Your task to perform on an android device: What's the weather going to be this weekend? Image 0: 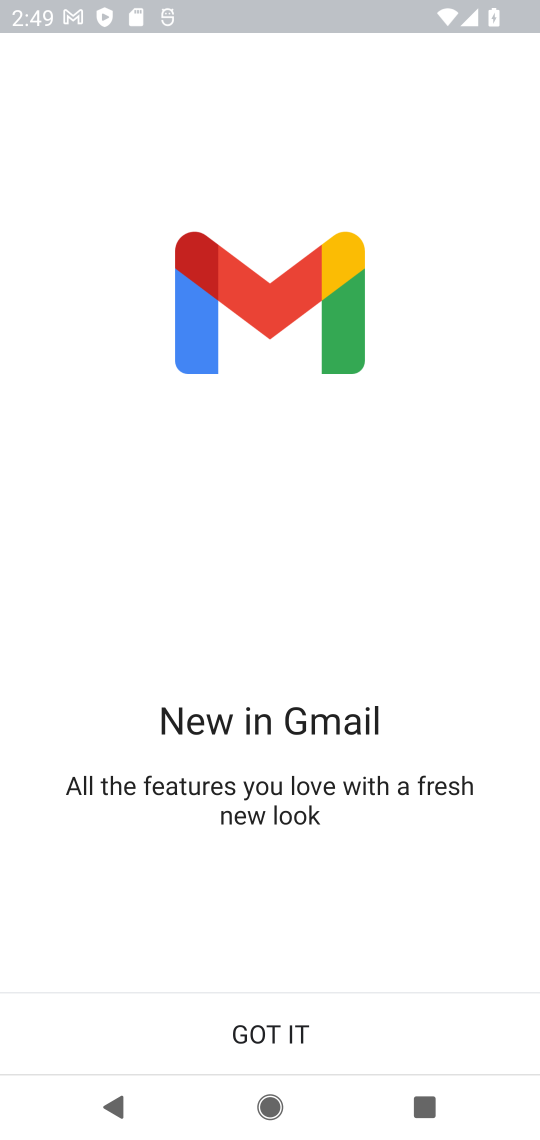
Step 0: press home button
Your task to perform on an android device: What's the weather going to be this weekend? Image 1: 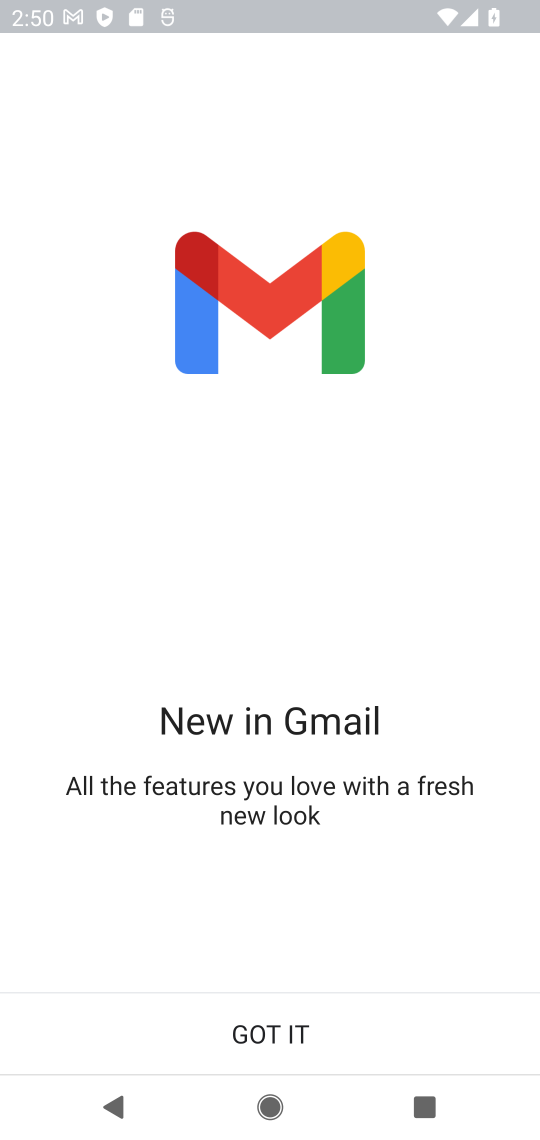
Step 1: press home button
Your task to perform on an android device: What's the weather going to be this weekend? Image 2: 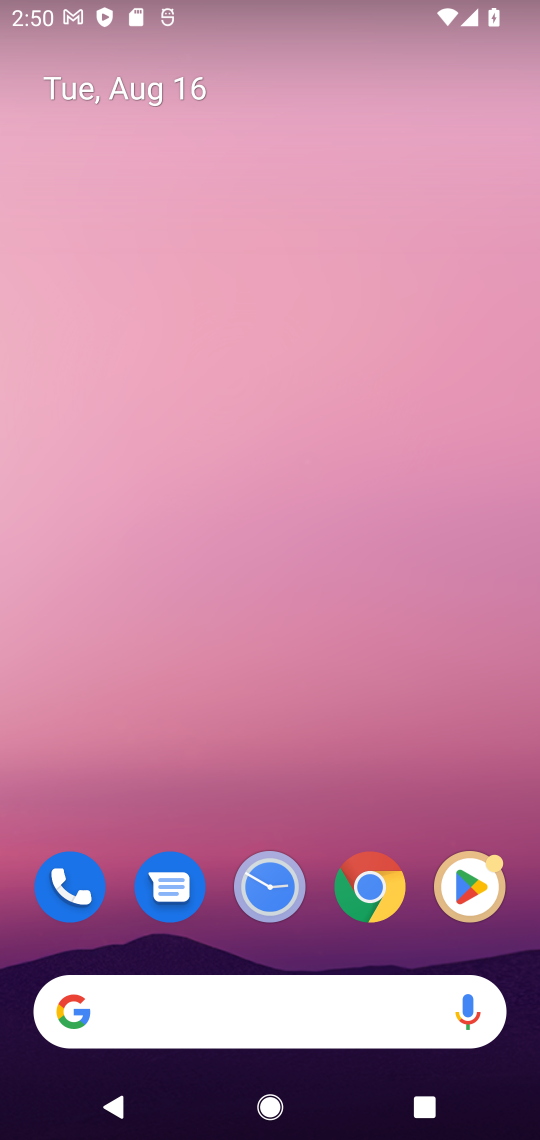
Step 2: drag from (301, 820) to (316, 75)
Your task to perform on an android device: What's the weather going to be this weekend? Image 3: 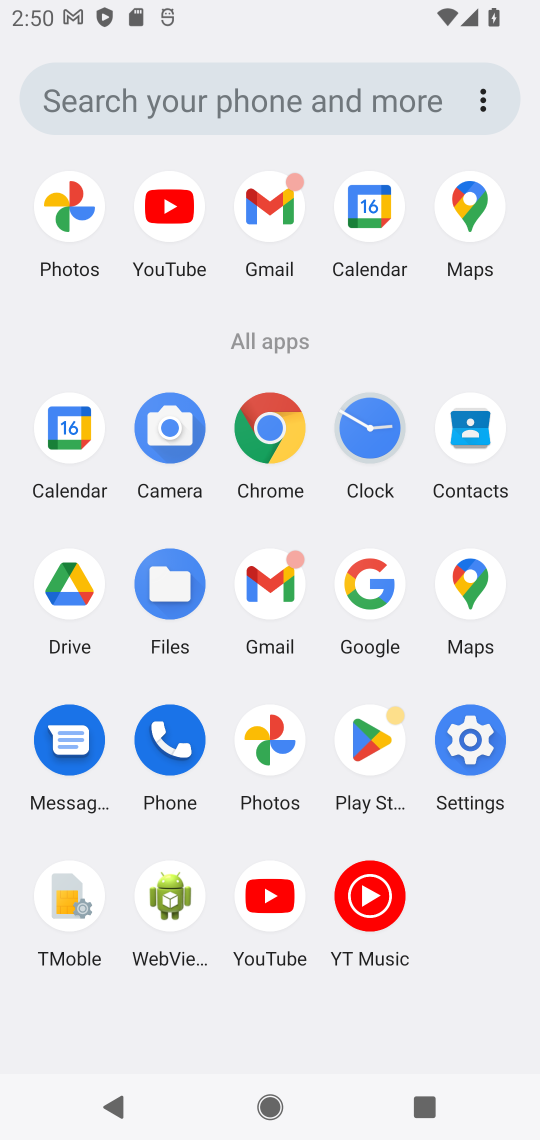
Step 3: click (257, 415)
Your task to perform on an android device: What's the weather going to be this weekend? Image 4: 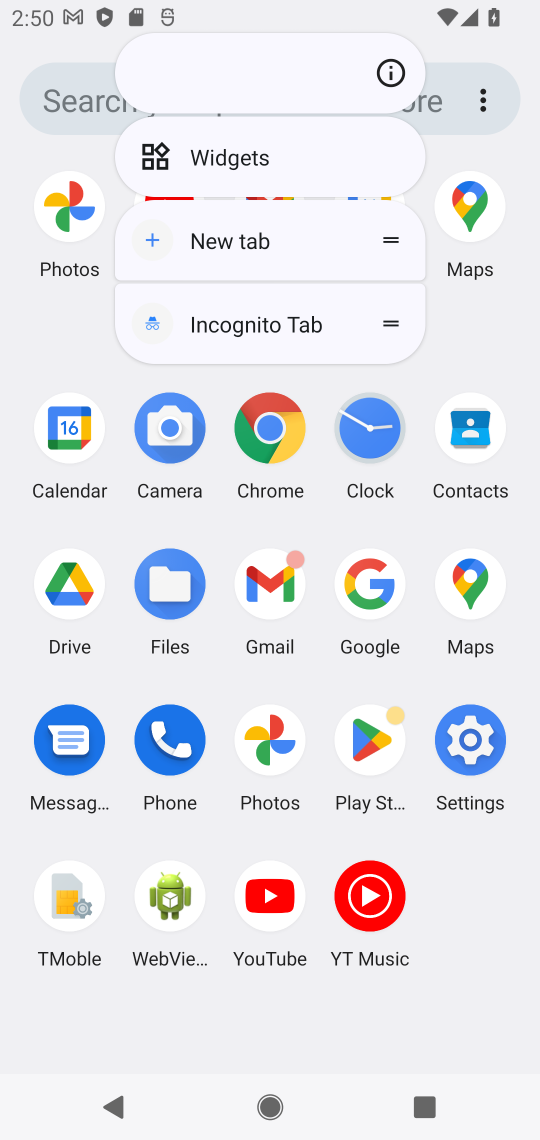
Step 4: click (276, 426)
Your task to perform on an android device: What's the weather going to be this weekend? Image 5: 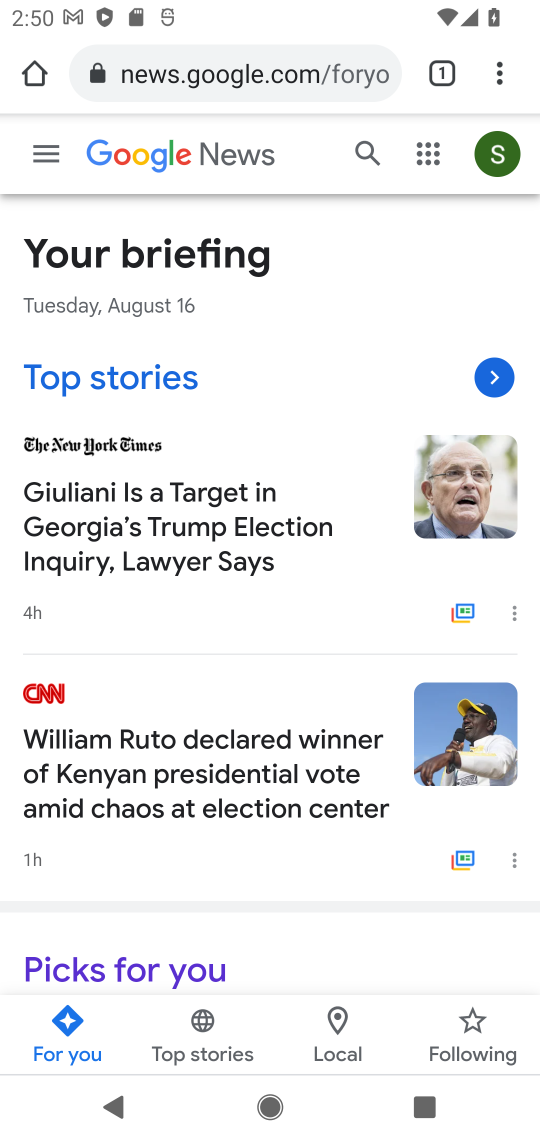
Step 5: click (196, 96)
Your task to perform on an android device: What's the weather going to be this weekend? Image 6: 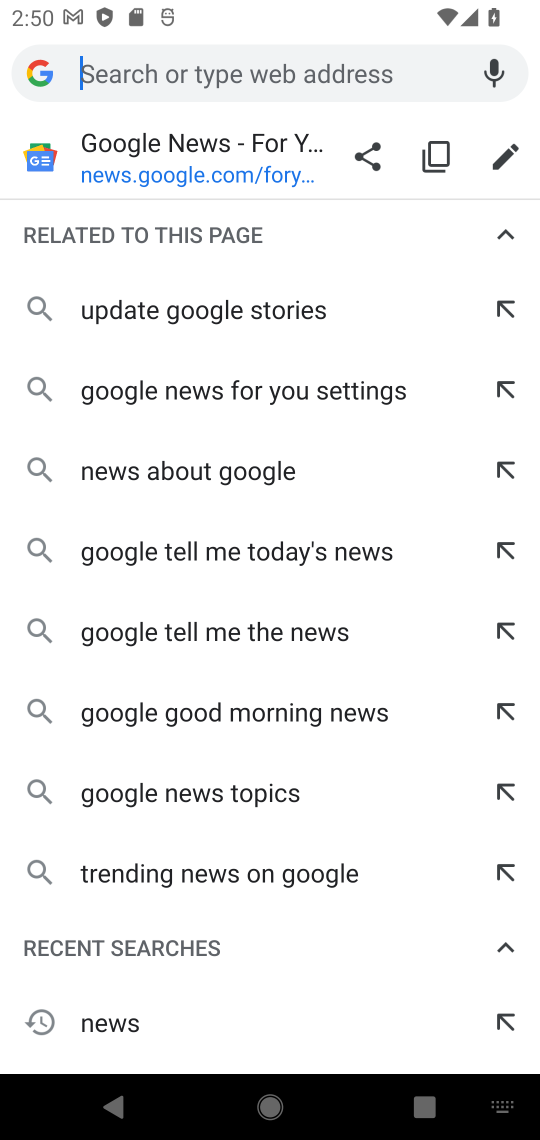
Step 6: type ""
Your task to perform on an android device: What's the weather going to be this weekend? Image 7: 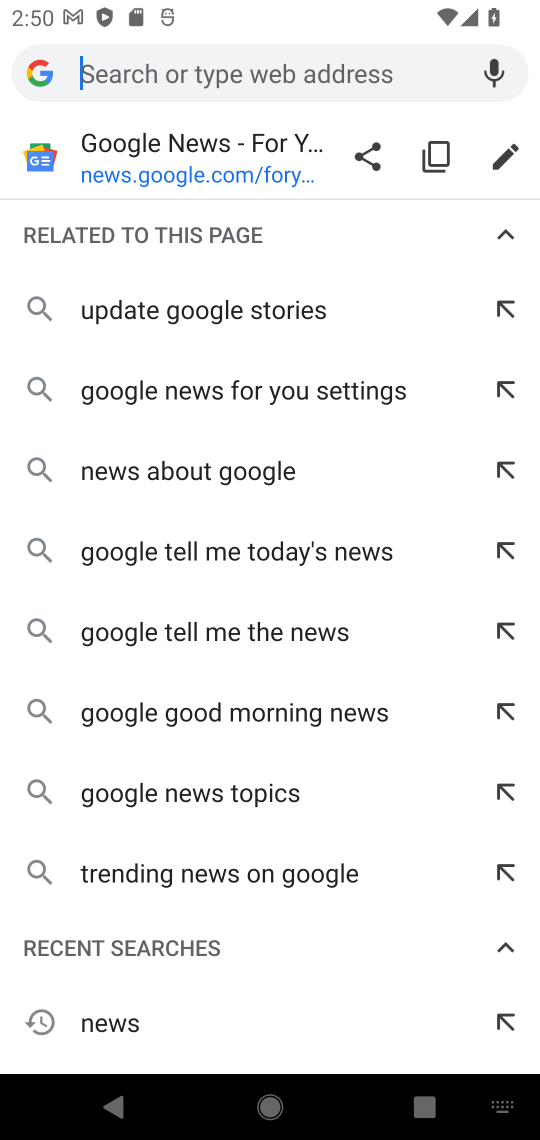
Step 7: type "weather"
Your task to perform on an android device: What's the weather going to be this weekend? Image 8: 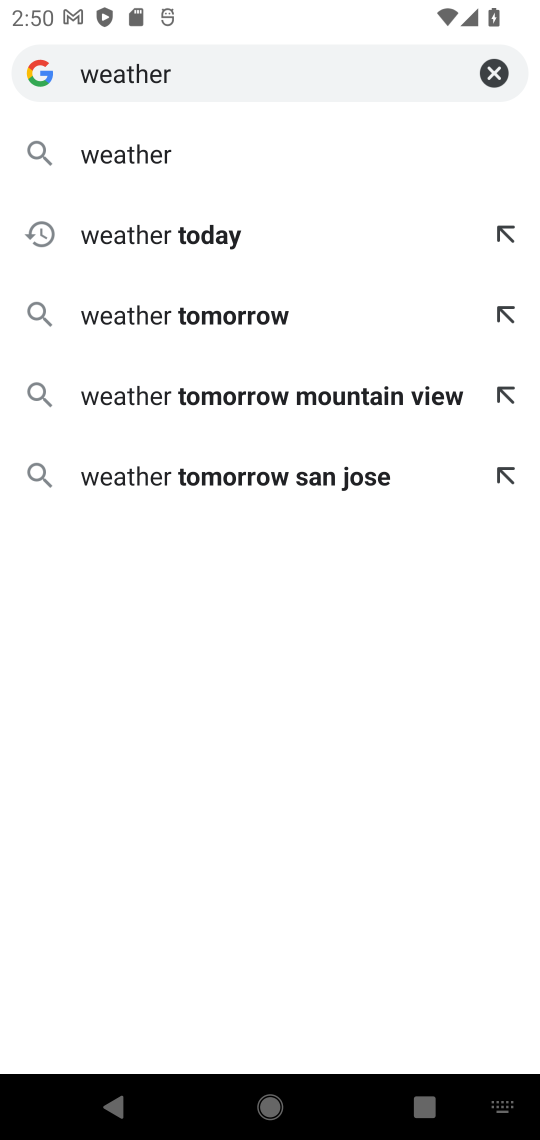
Step 8: click (222, 148)
Your task to perform on an android device: What's the weather going to be this weekend? Image 9: 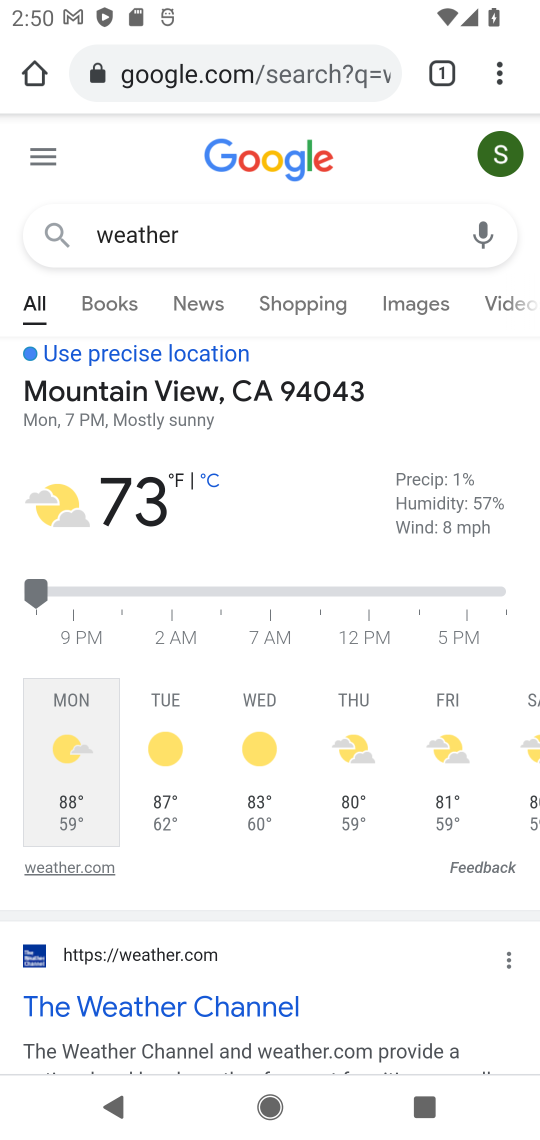
Step 9: click (517, 748)
Your task to perform on an android device: What's the weather going to be this weekend? Image 10: 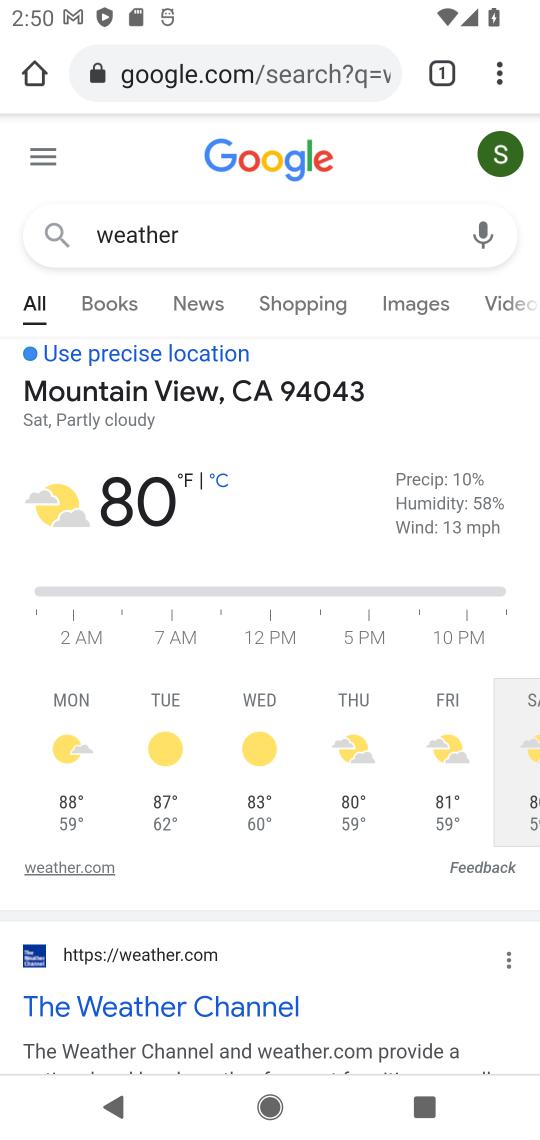
Step 10: task complete